Your task to perform on an android device: Open the map Image 0: 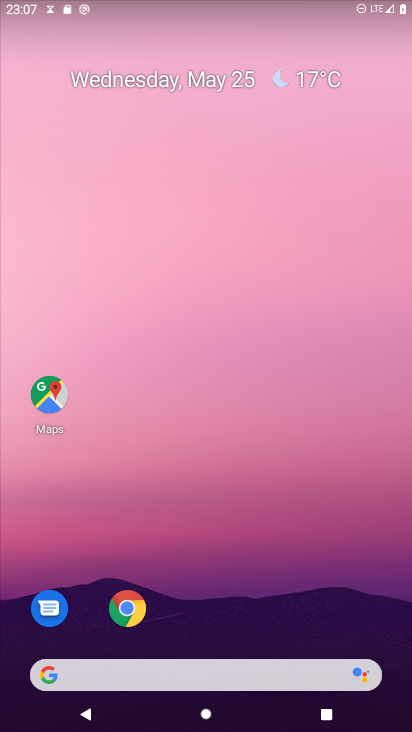
Step 0: click (49, 387)
Your task to perform on an android device: Open the map Image 1: 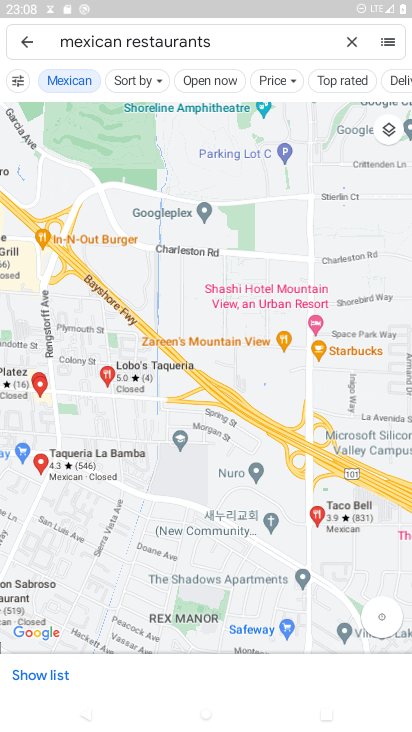
Step 1: task complete